Your task to perform on an android device: set an alarm Image 0: 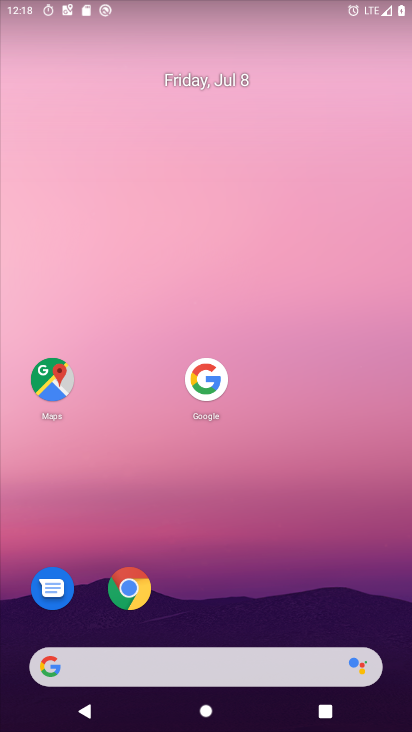
Step 0: drag from (225, 667) to (400, 99)
Your task to perform on an android device: set an alarm Image 1: 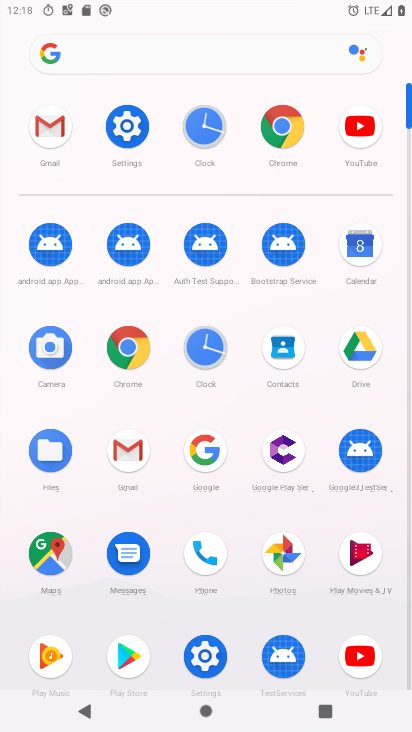
Step 1: click (209, 347)
Your task to perform on an android device: set an alarm Image 2: 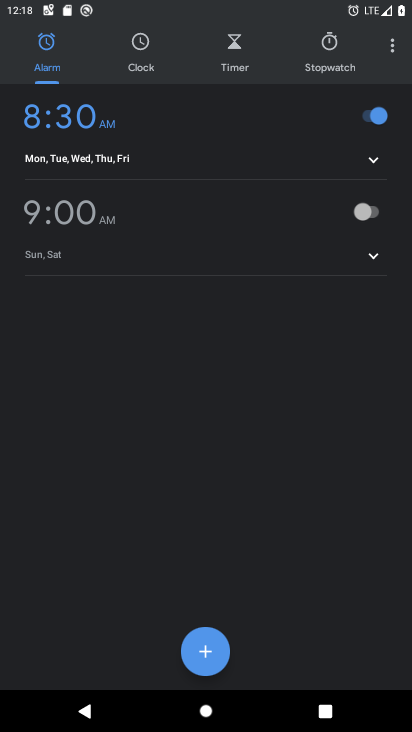
Step 2: click (368, 214)
Your task to perform on an android device: set an alarm Image 3: 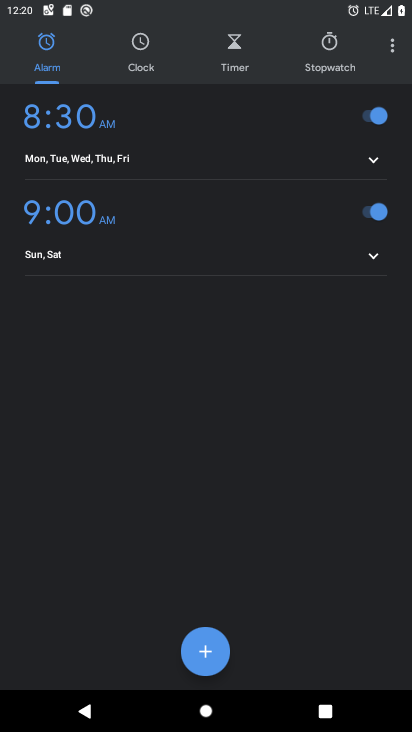
Step 3: task complete